Your task to perform on an android device: check out phone information Image 0: 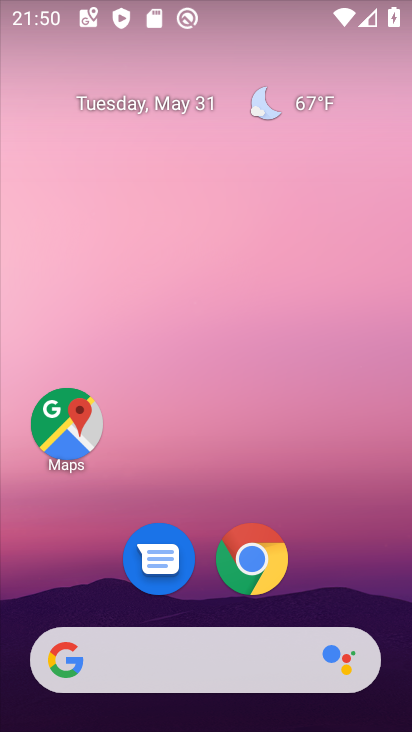
Step 0: drag from (329, 580) to (333, 66)
Your task to perform on an android device: check out phone information Image 1: 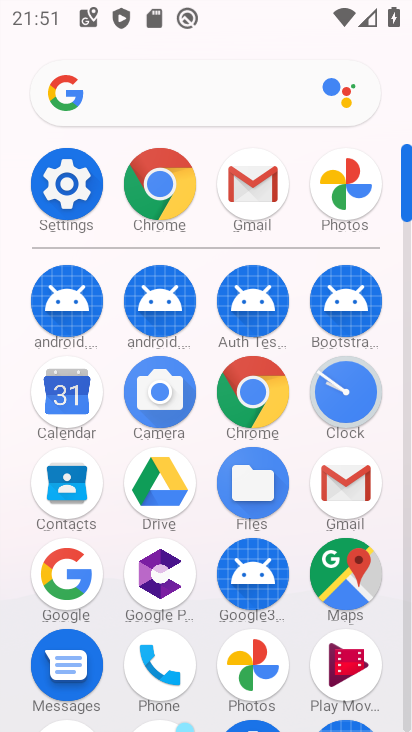
Step 1: click (64, 188)
Your task to perform on an android device: check out phone information Image 2: 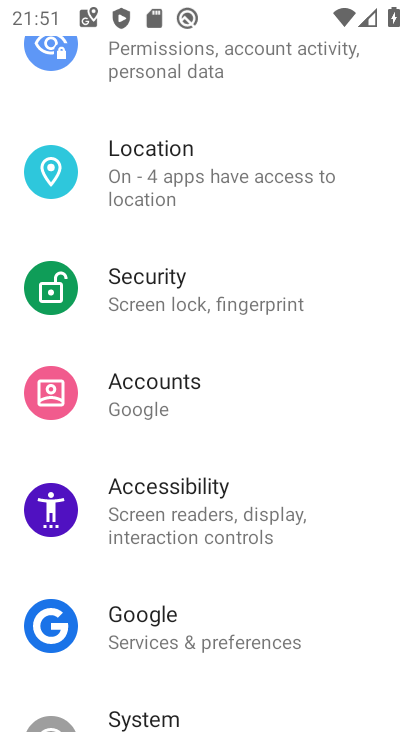
Step 2: drag from (300, 629) to (308, 137)
Your task to perform on an android device: check out phone information Image 3: 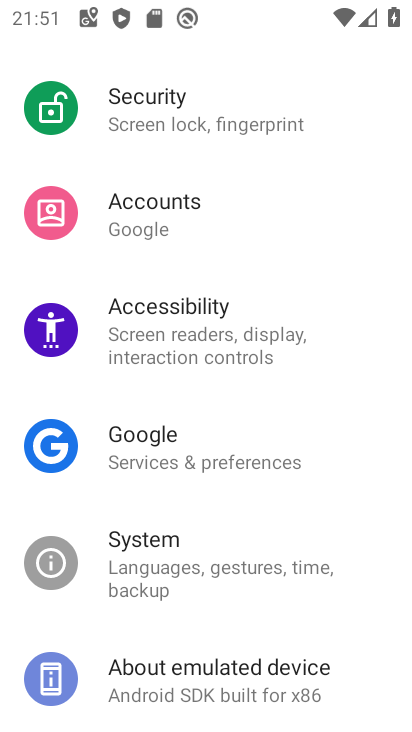
Step 3: click (196, 676)
Your task to perform on an android device: check out phone information Image 4: 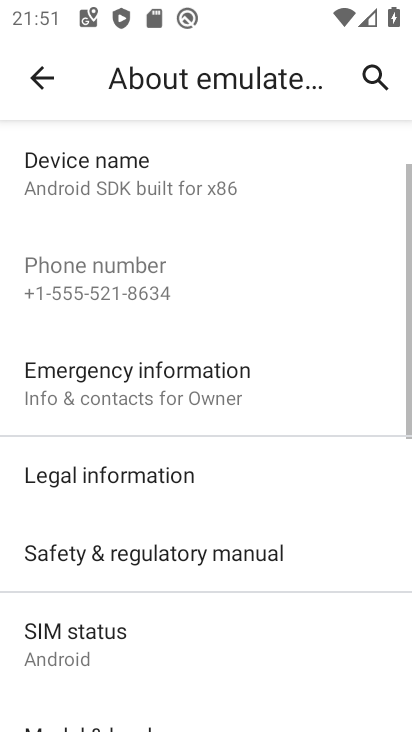
Step 4: task complete